Your task to perform on an android device: change timer sound Image 0: 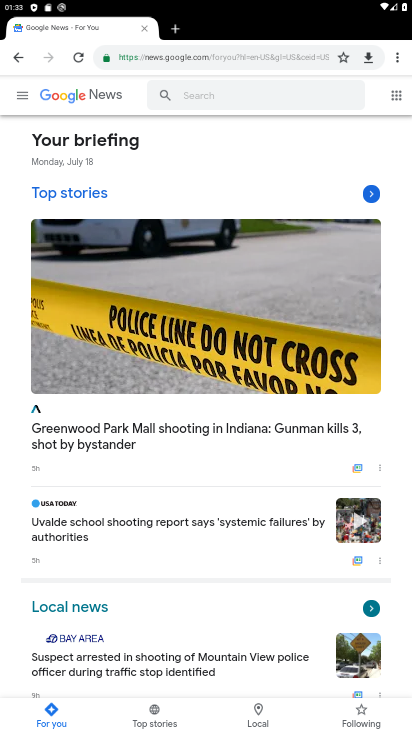
Step 0: press home button
Your task to perform on an android device: change timer sound Image 1: 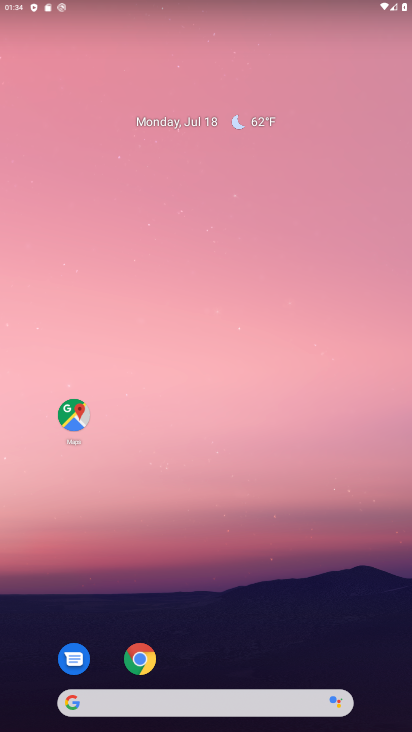
Step 1: drag from (283, 624) to (244, 94)
Your task to perform on an android device: change timer sound Image 2: 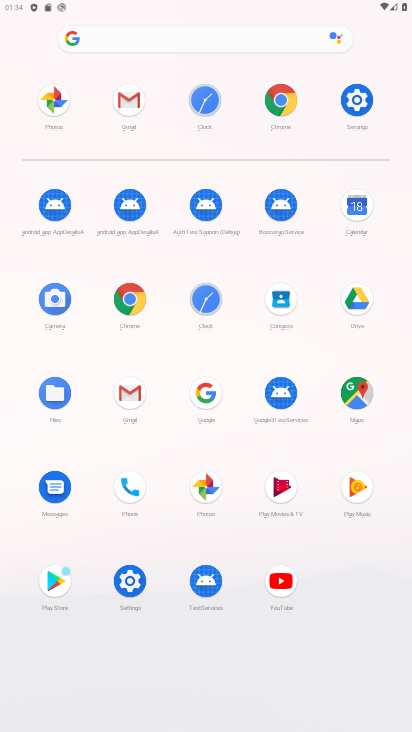
Step 2: click (212, 307)
Your task to perform on an android device: change timer sound Image 3: 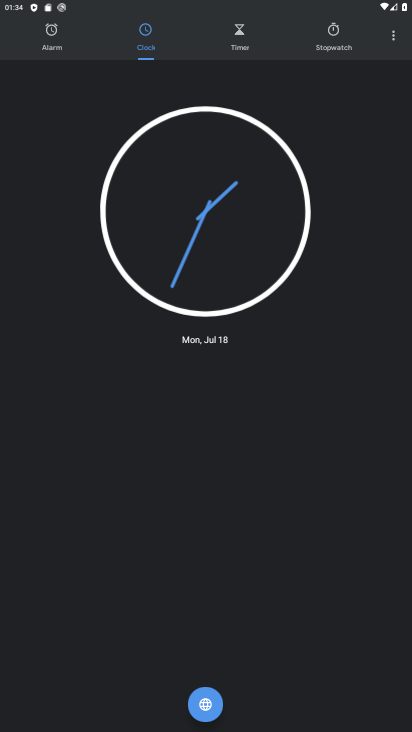
Step 3: click (398, 34)
Your task to perform on an android device: change timer sound Image 4: 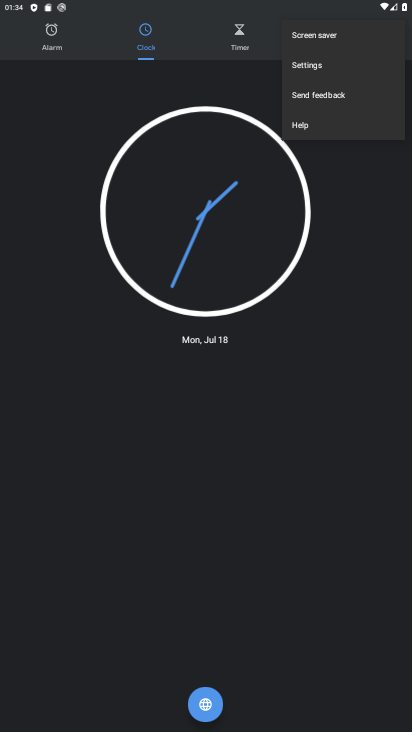
Step 4: click (324, 67)
Your task to perform on an android device: change timer sound Image 5: 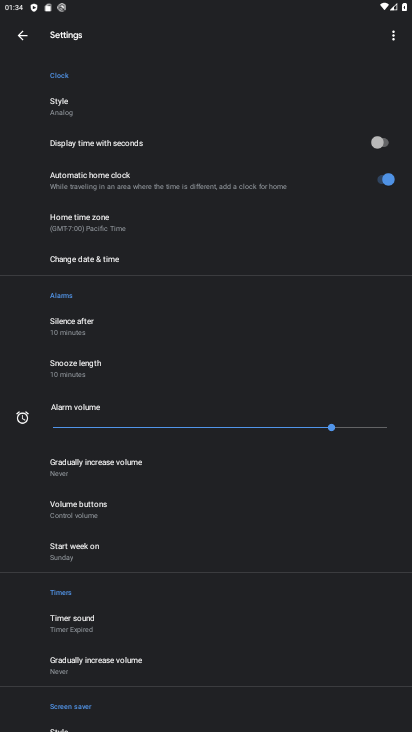
Step 5: click (61, 616)
Your task to perform on an android device: change timer sound Image 6: 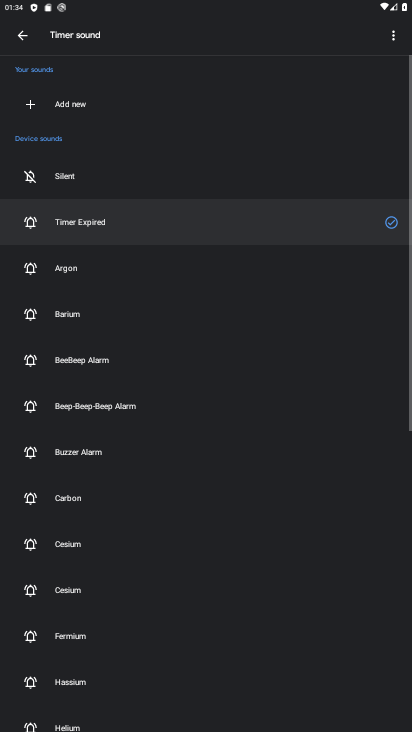
Step 6: click (111, 282)
Your task to perform on an android device: change timer sound Image 7: 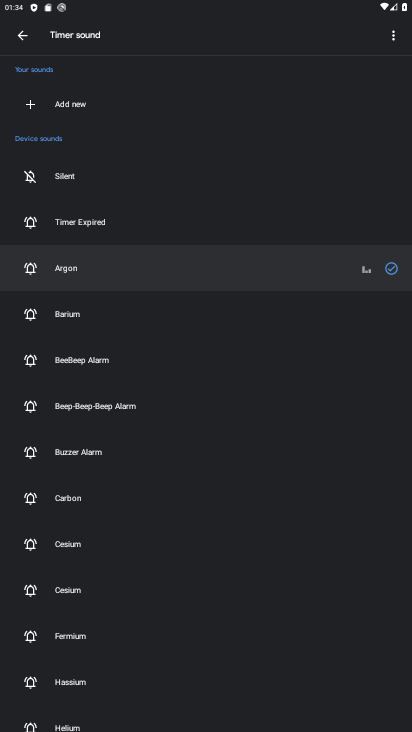
Step 7: task complete